Your task to perform on an android device: Show me popular videos on Youtube Image 0: 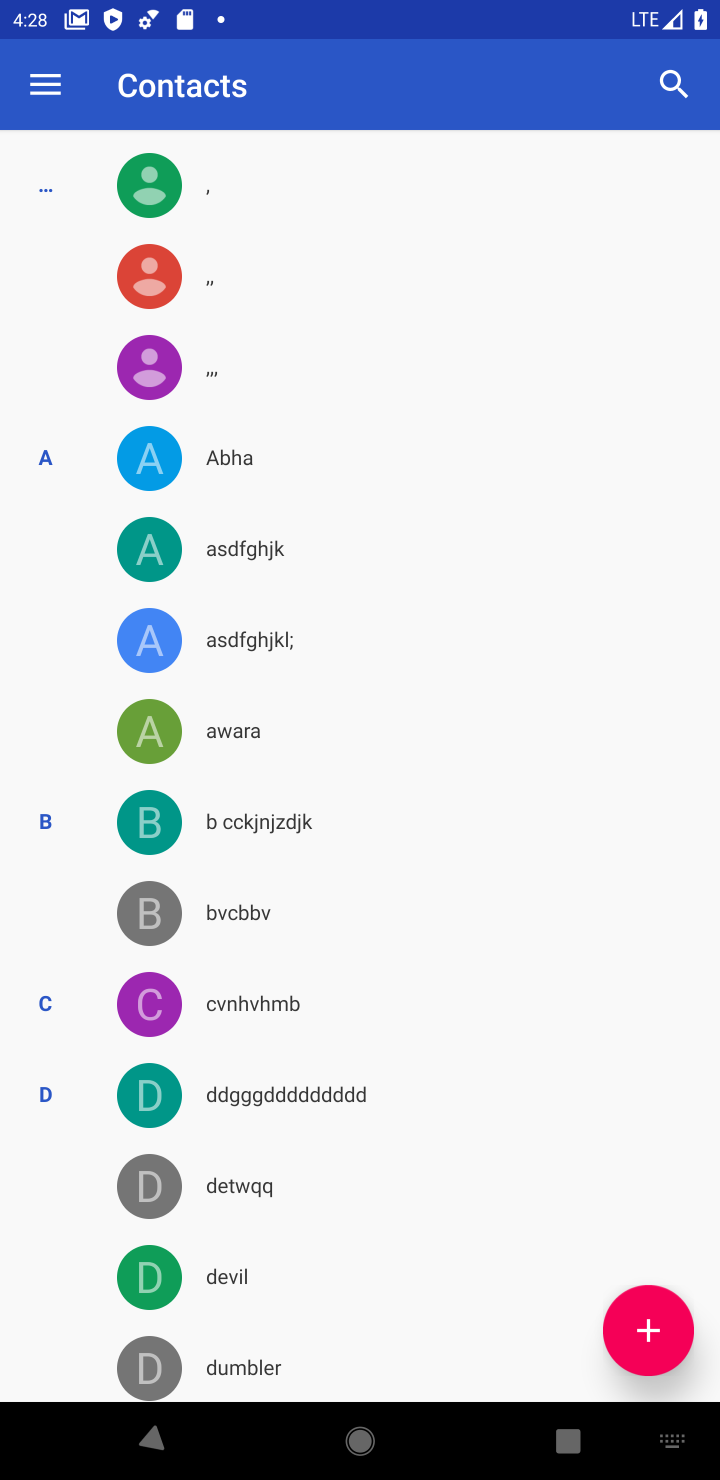
Step 0: press home button
Your task to perform on an android device: Show me popular videos on Youtube Image 1: 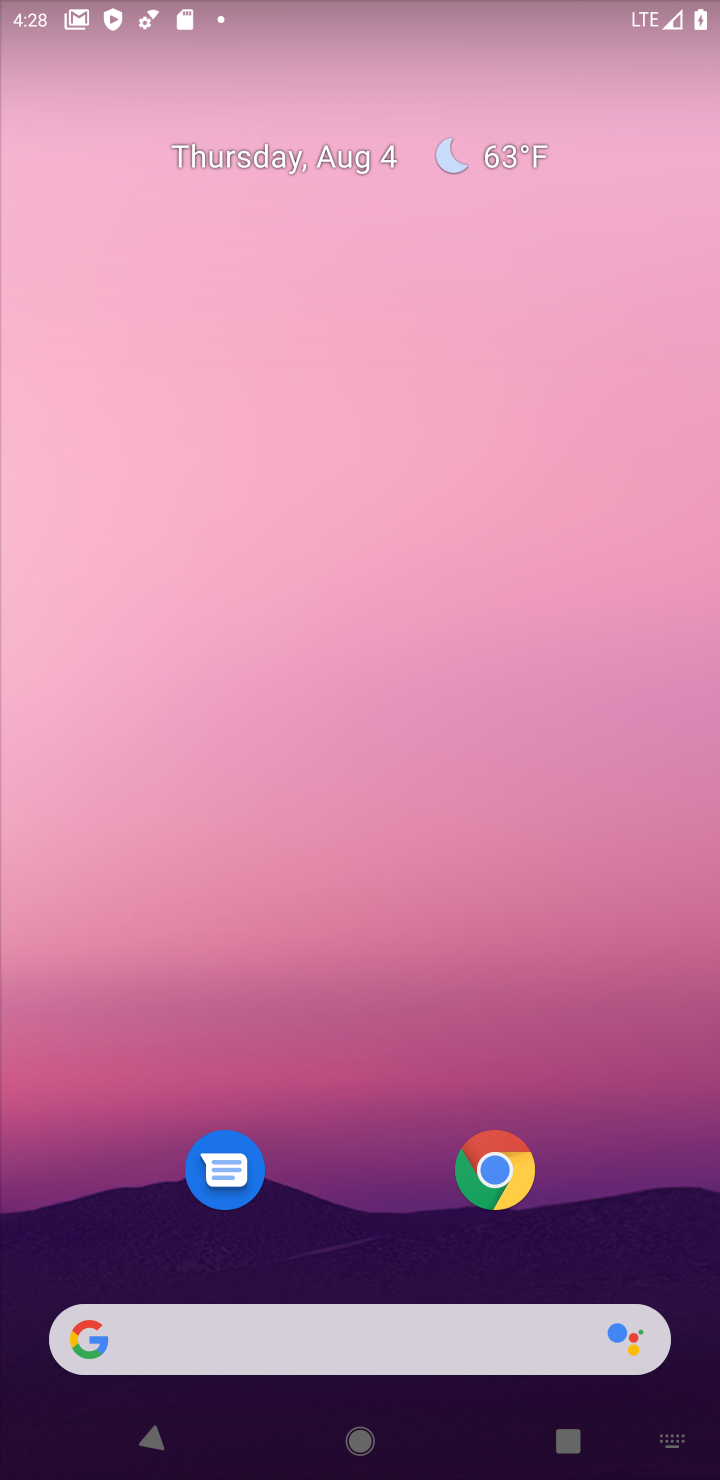
Step 1: drag from (643, 1227) to (162, 1413)
Your task to perform on an android device: Show me popular videos on Youtube Image 2: 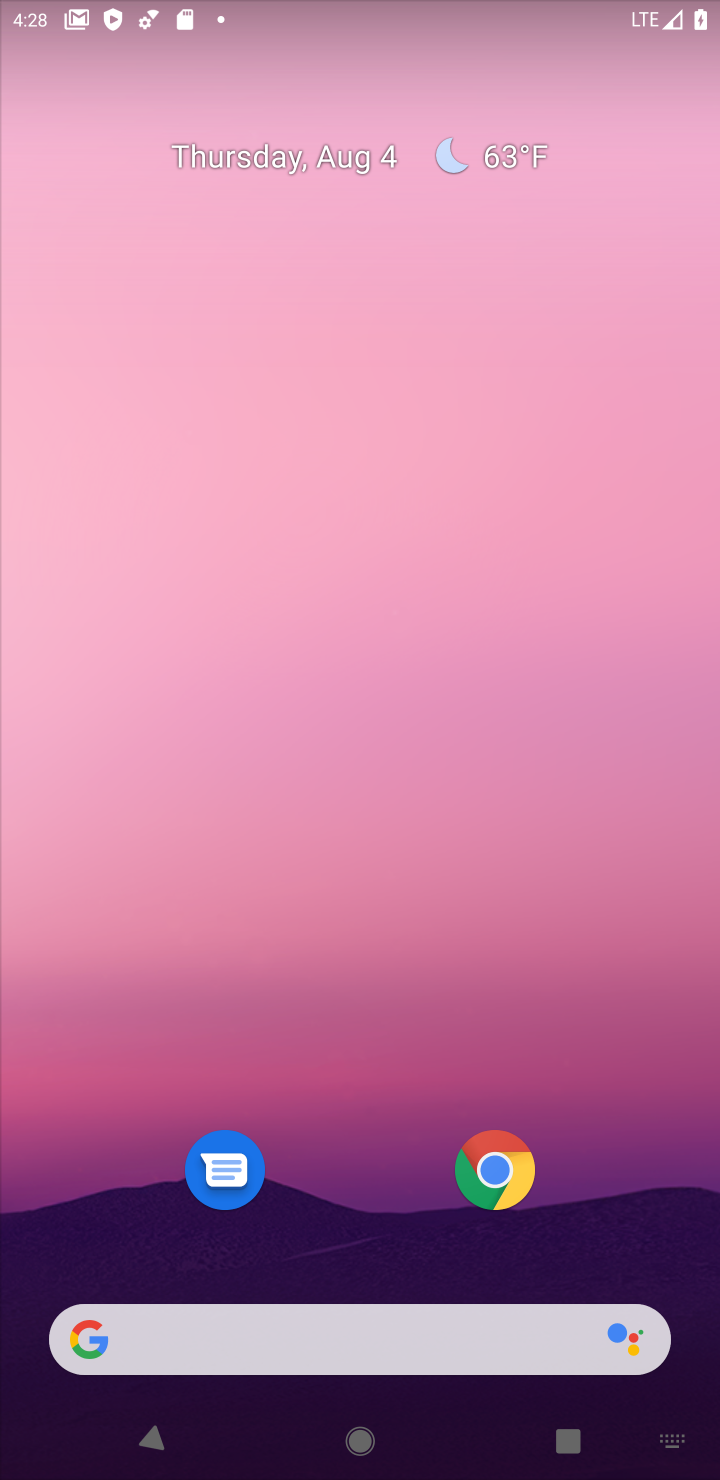
Step 2: drag from (647, 1266) to (447, 147)
Your task to perform on an android device: Show me popular videos on Youtube Image 3: 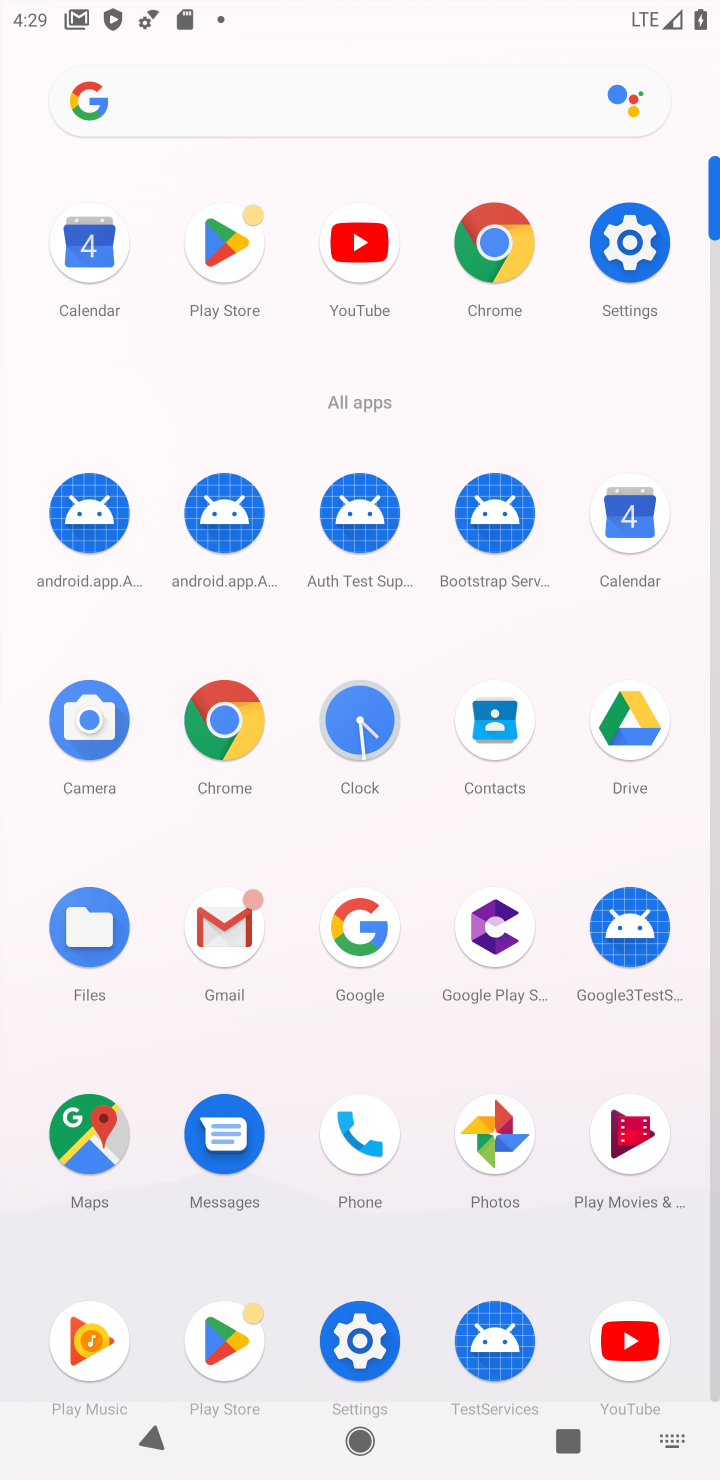
Step 3: click (367, 246)
Your task to perform on an android device: Show me popular videos on Youtube Image 4: 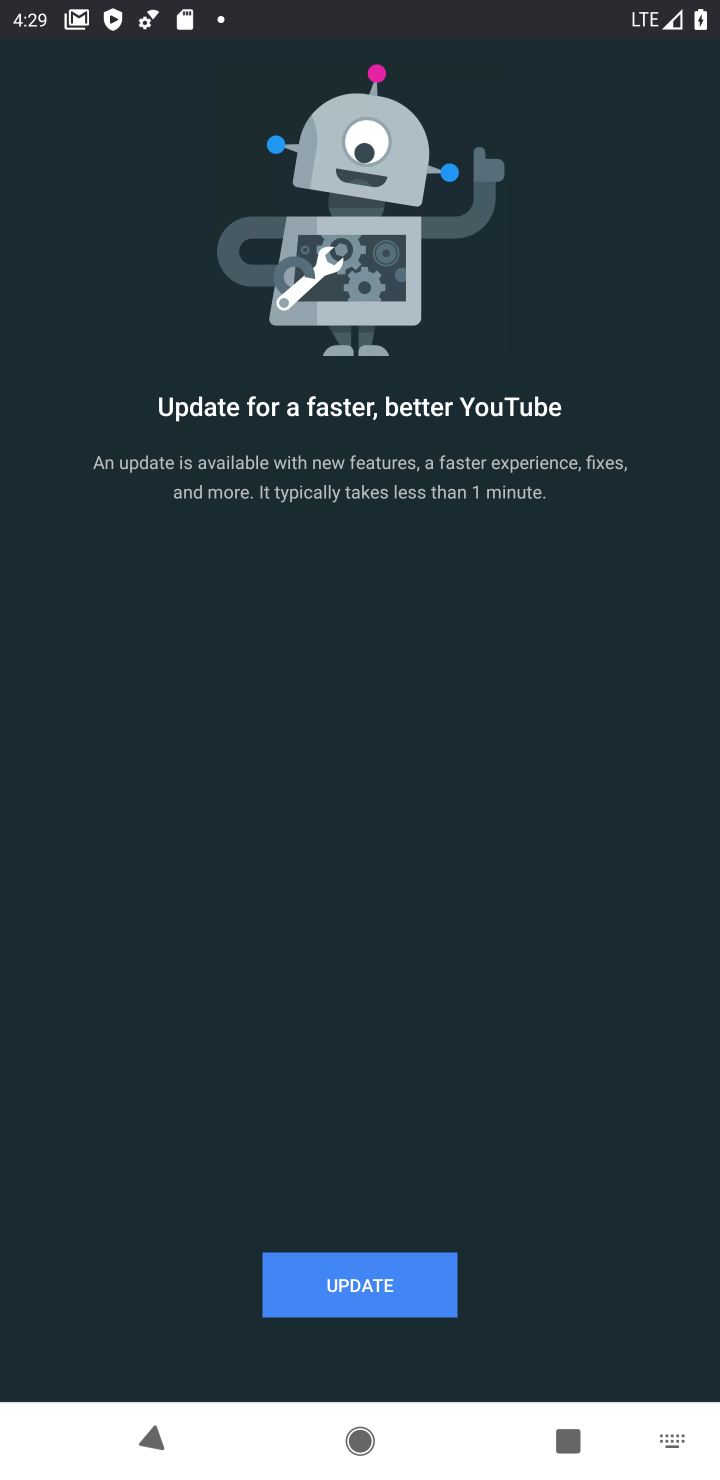
Step 4: click (404, 1288)
Your task to perform on an android device: Show me popular videos on Youtube Image 5: 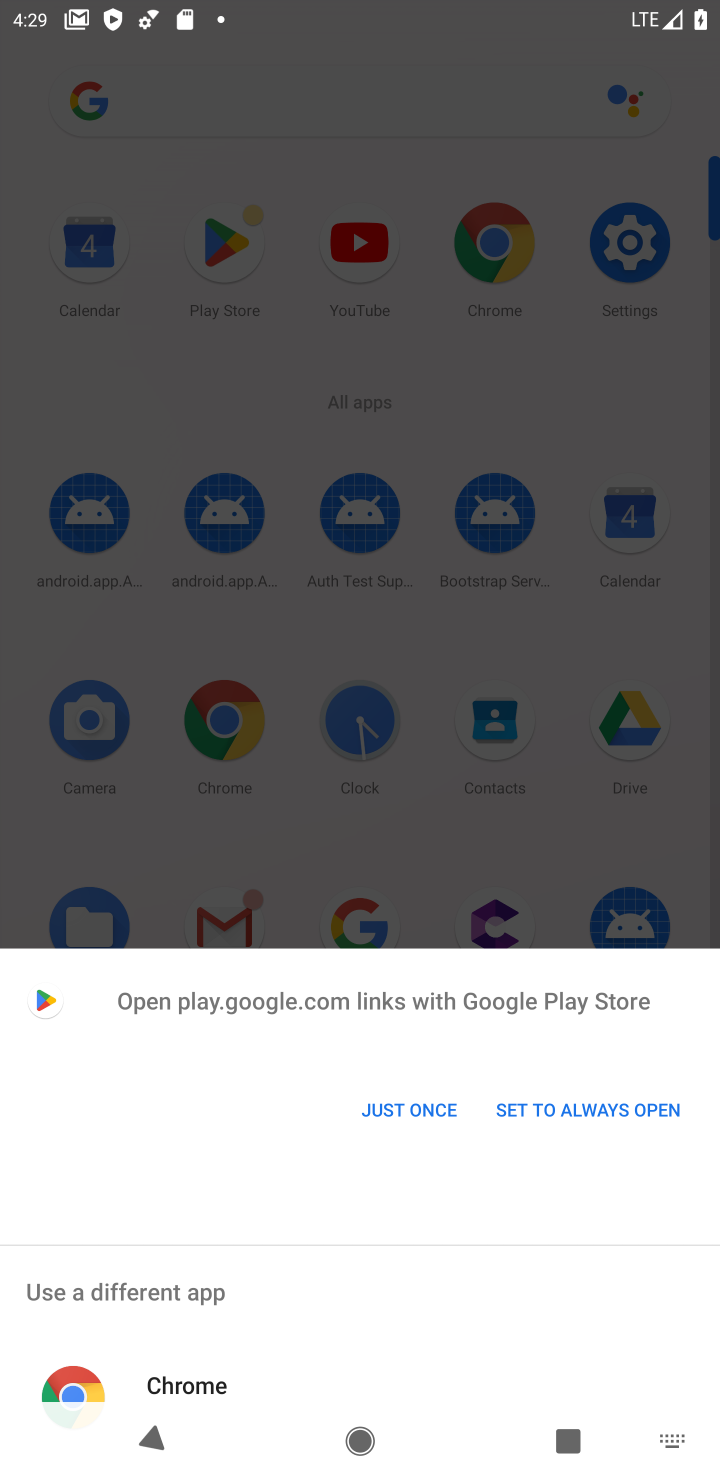
Step 5: click (391, 1130)
Your task to perform on an android device: Show me popular videos on Youtube Image 6: 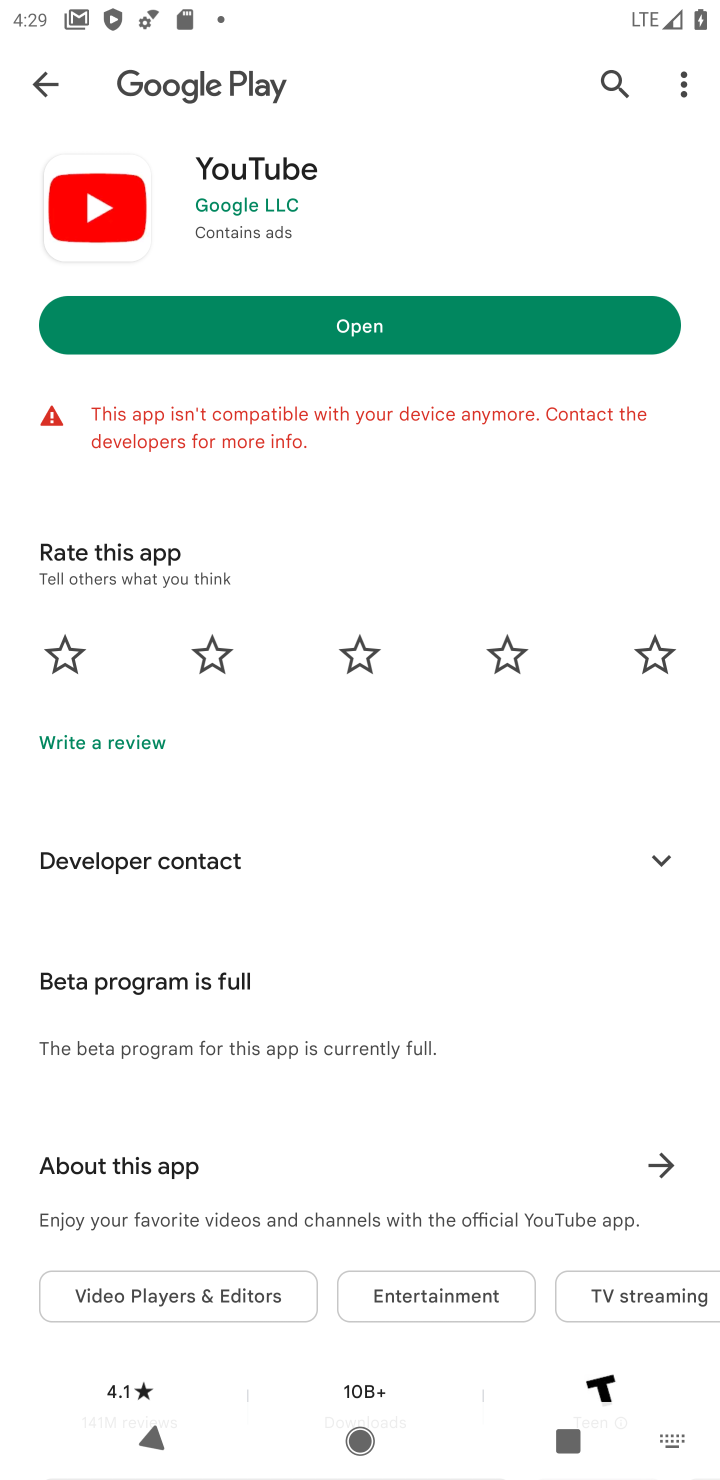
Step 6: click (340, 306)
Your task to perform on an android device: Show me popular videos on Youtube Image 7: 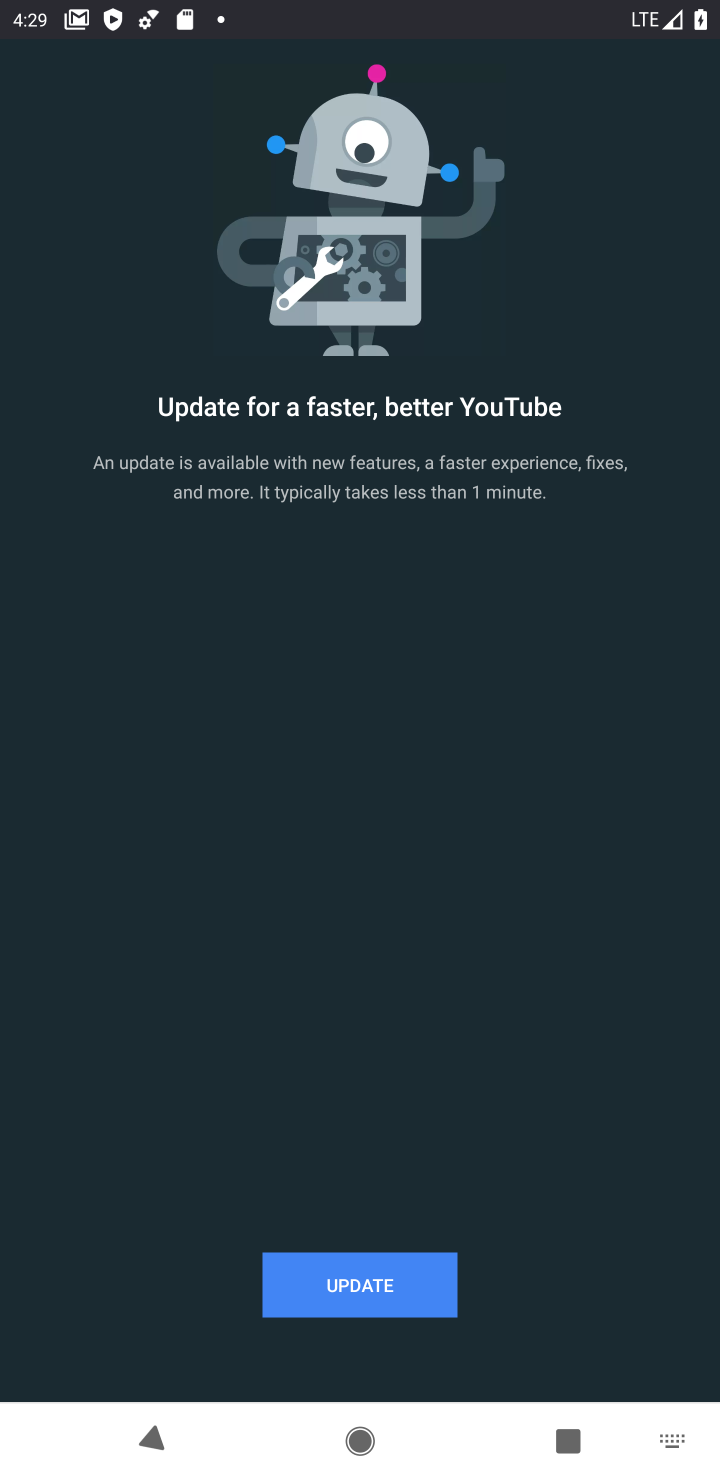
Step 7: task complete